Your task to perform on an android device: toggle sleep mode Image 0: 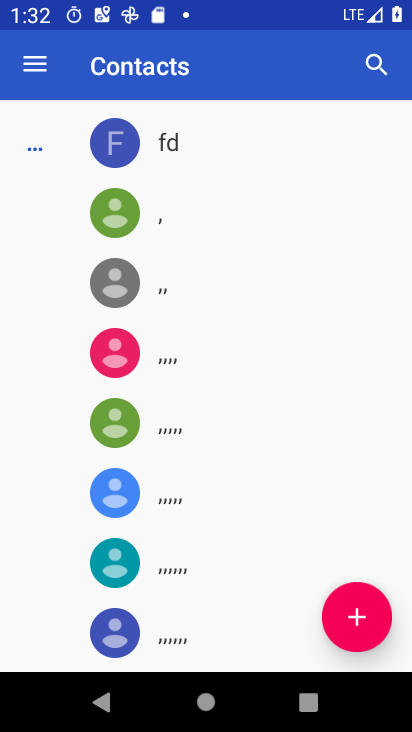
Step 0: press home button
Your task to perform on an android device: toggle sleep mode Image 1: 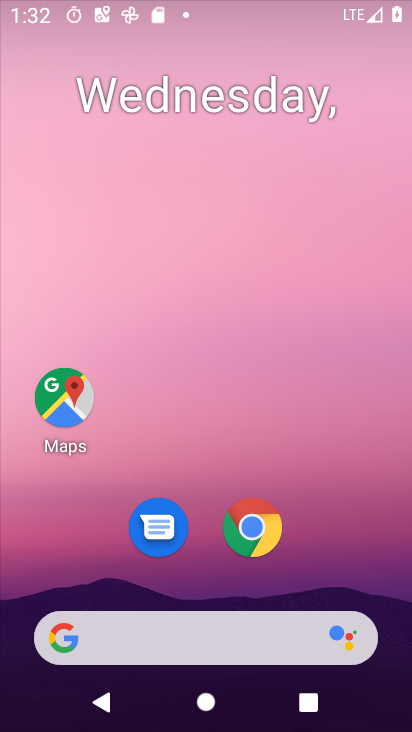
Step 1: drag from (156, 677) to (228, 63)
Your task to perform on an android device: toggle sleep mode Image 2: 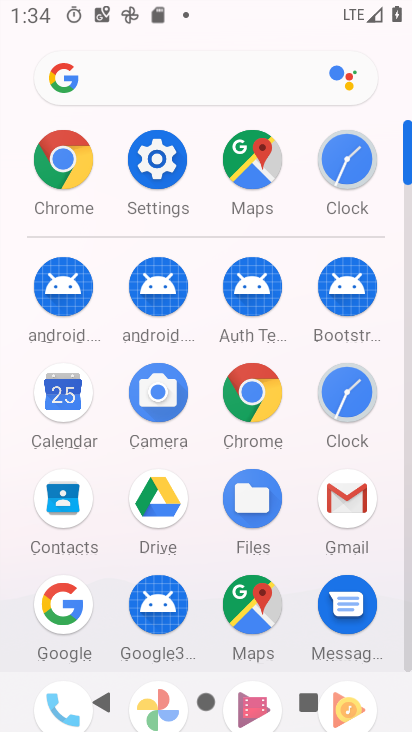
Step 2: click (158, 178)
Your task to perform on an android device: toggle sleep mode Image 3: 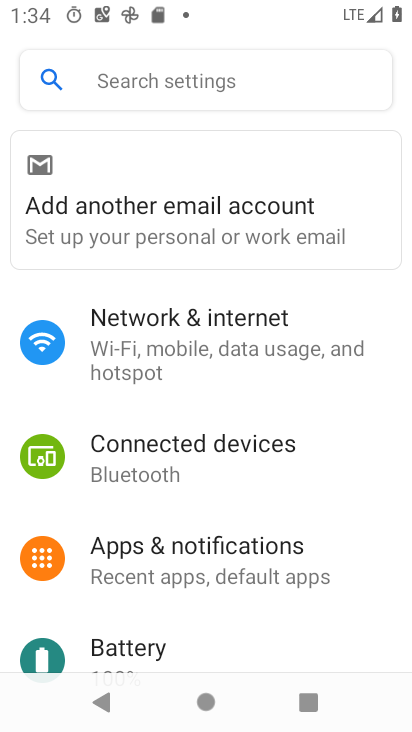
Step 3: drag from (196, 545) to (236, 175)
Your task to perform on an android device: toggle sleep mode Image 4: 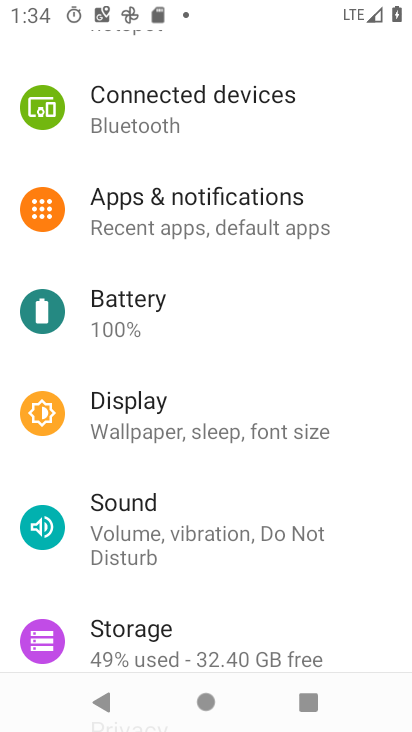
Step 4: click (183, 402)
Your task to perform on an android device: toggle sleep mode Image 5: 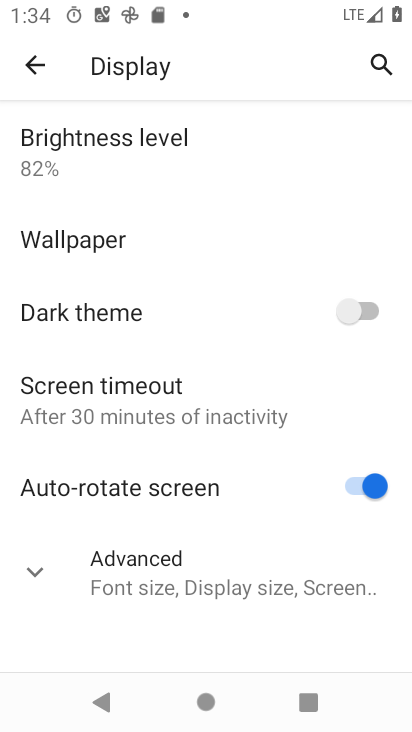
Step 5: task complete